Your task to perform on an android device: see tabs open on other devices in the chrome app Image 0: 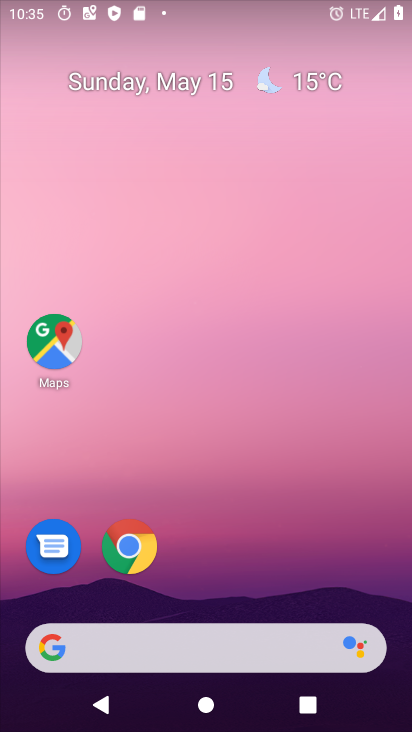
Step 0: drag from (278, 679) to (127, 170)
Your task to perform on an android device: see tabs open on other devices in the chrome app Image 1: 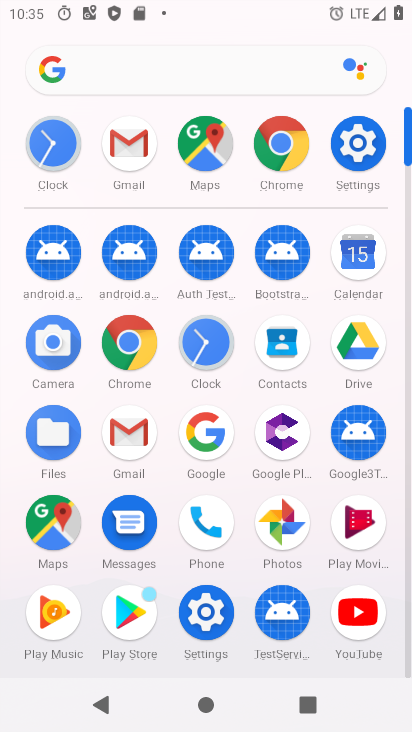
Step 1: click (283, 145)
Your task to perform on an android device: see tabs open on other devices in the chrome app Image 2: 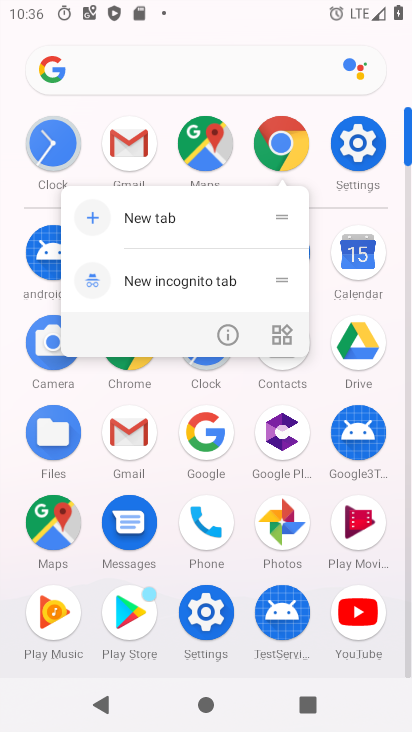
Step 2: click (279, 140)
Your task to perform on an android device: see tabs open on other devices in the chrome app Image 3: 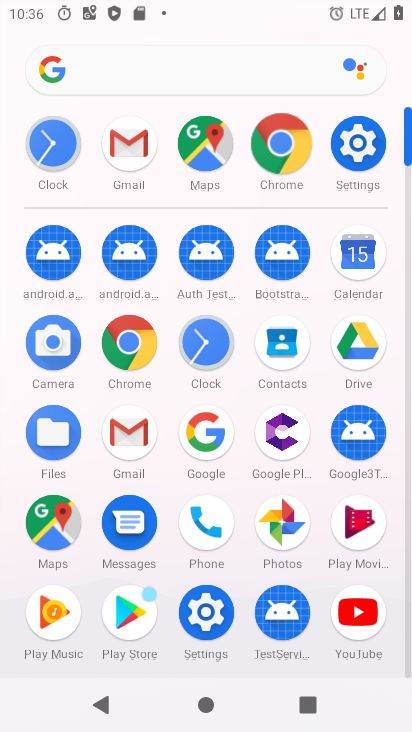
Step 3: click (280, 141)
Your task to perform on an android device: see tabs open on other devices in the chrome app Image 4: 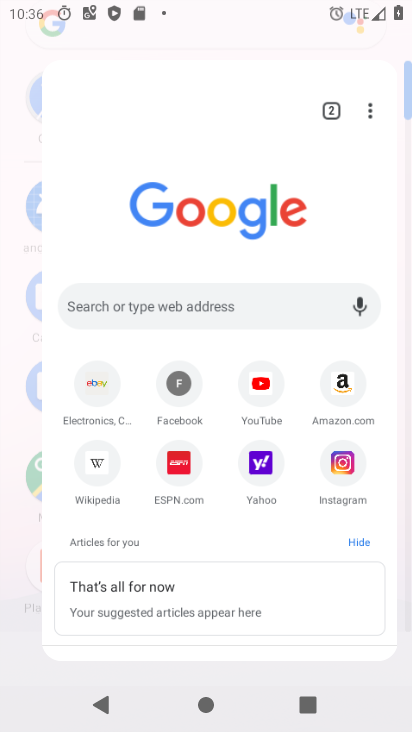
Step 4: click (283, 141)
Your task to perform on an android device: see tabs open on other devices in the chrome app Image 5: 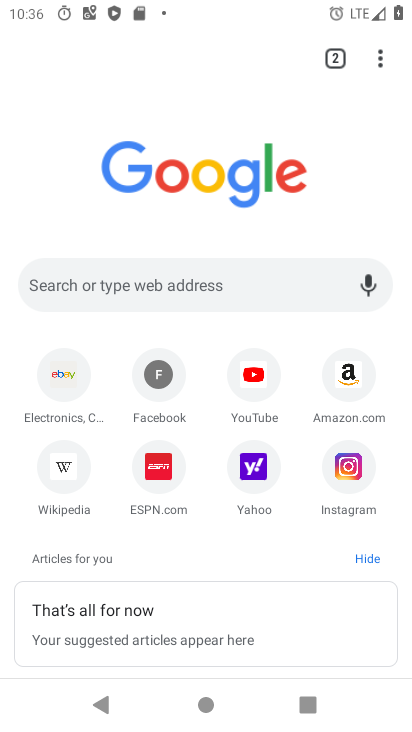
Step 5: drag from (377, 61) to (165, 283)
Your task to perform on an android device: see tabs open on other devices in the chrome app Image 6: 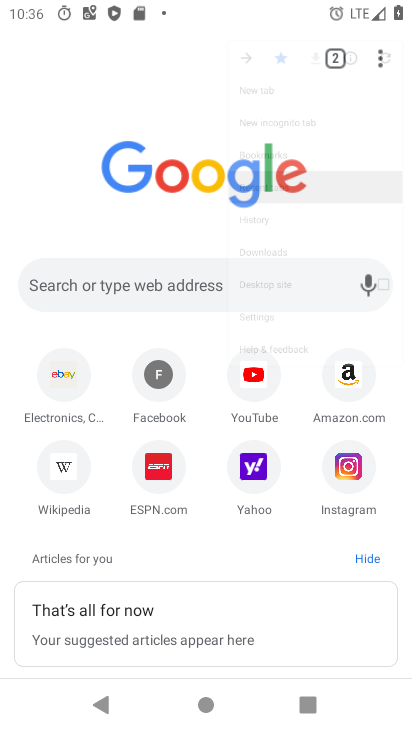
Step 6: click (169, 280)
Your task to perform on an android device: see tabs open on other devices in the chrome app Image 7: 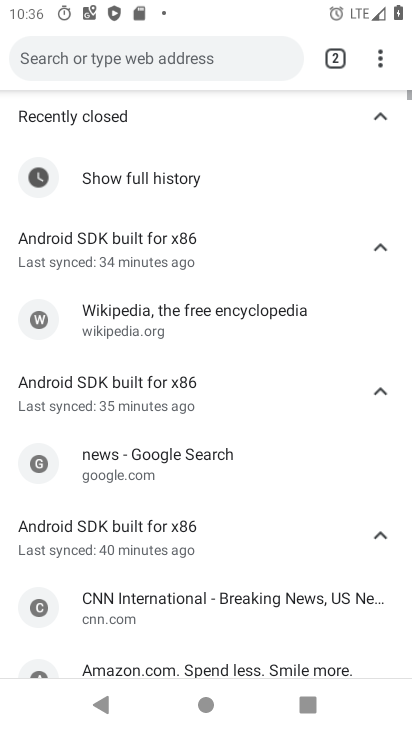
Step 7: click (169, 280)
Your task to perform on an android device: see tabs open on other devices in the chrome app Image 8: 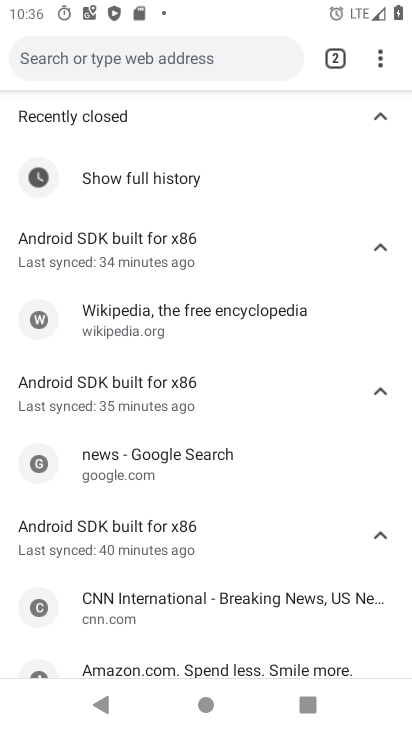
Step 8: task complete